Your task to perform on an android device: set the stopwatch Image 0: 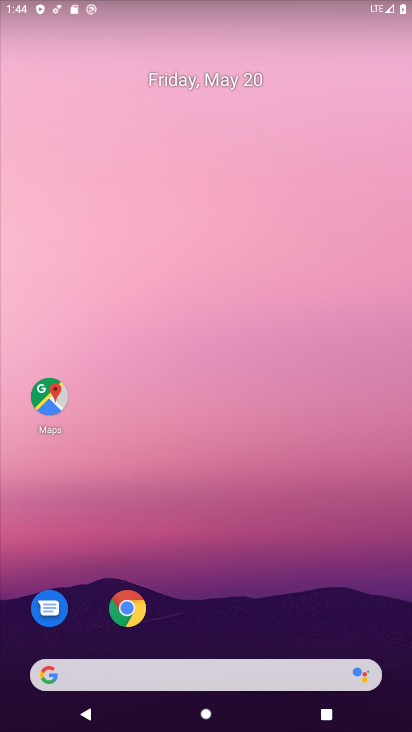
Step 0: drag from (259, 606) to (174, 119)
Your task to perform on an android device: set the stopwatch Image 1: 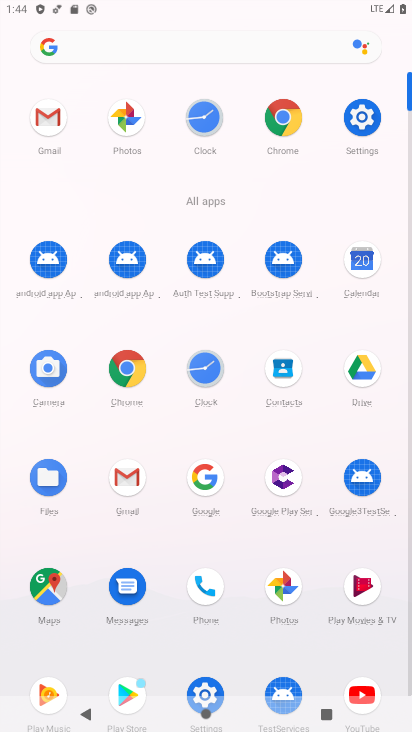
Step 1: click (200, 119)
Your task to perform on an android device: set the stopwatch Image 2: 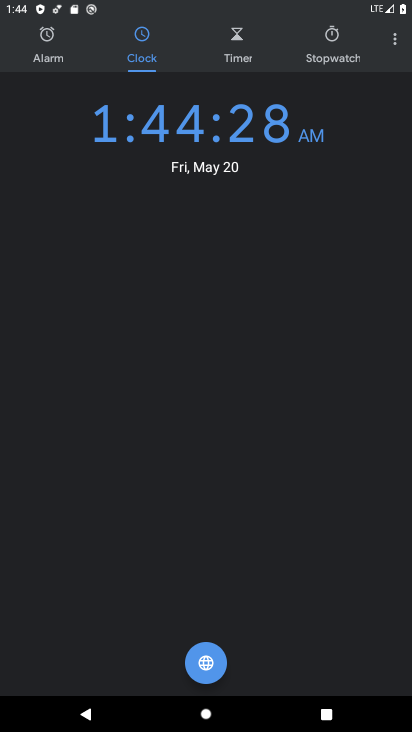
Step 2: click (334, 35)
Your task to perform on an android device: set the stopwatch Image 3: 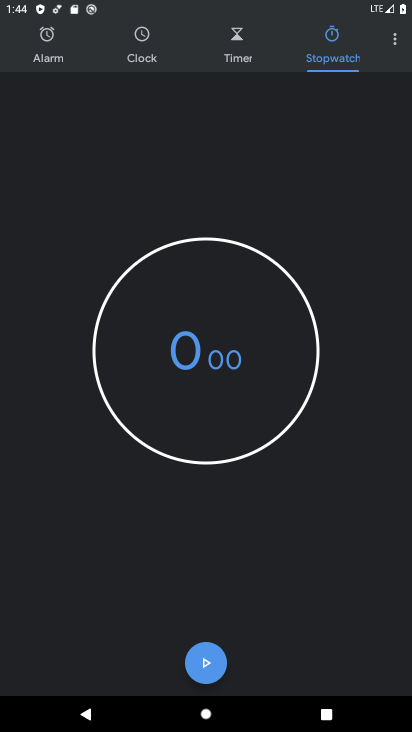
Step 3: click (206, 668)
Your task to perform on an android device: set the stopwatch Image 4: 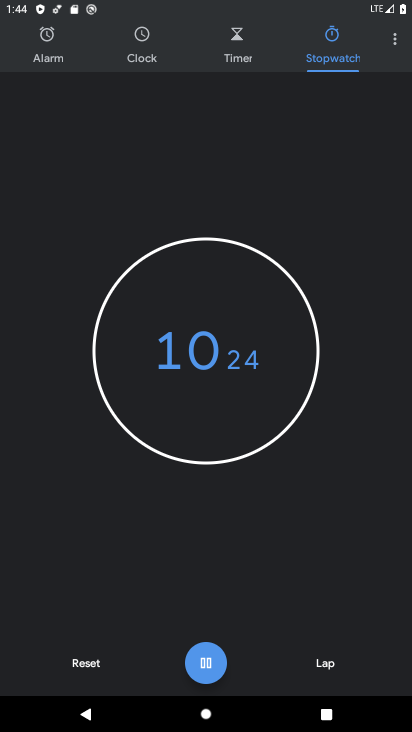
Step 4: click (209, 661)
Your task to perform on an android device: set the stopwatch Image 5: 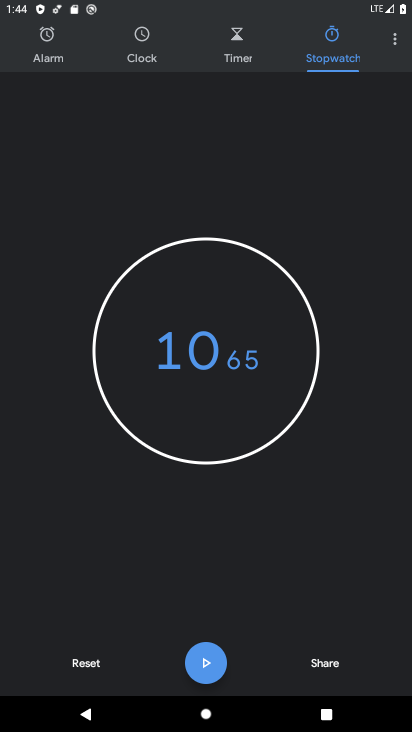
Step 5: task complete